Your task to perform on an android device: Go to privacy settings Image 0: 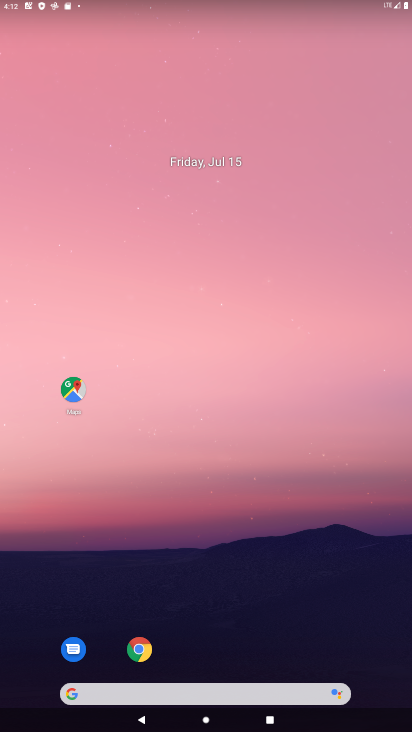
Step 0: drag from (295, 580) to (281, 111)
Your task to perform on an android device: Go to privacy settings Image 1: 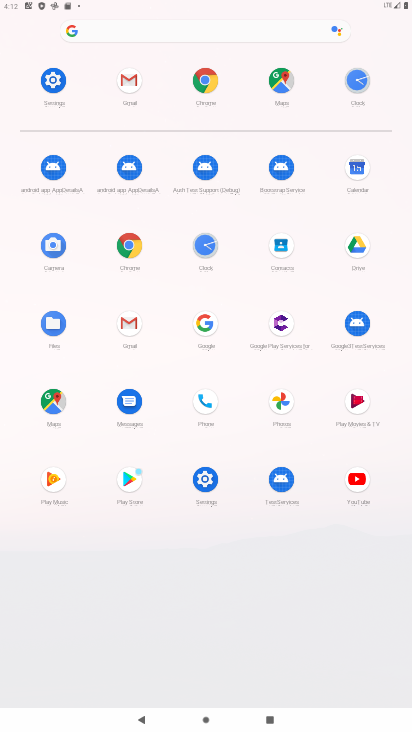
Step 1: click (56, 84)
Your task to perform on an android device: Go to privacy settings Image 2: 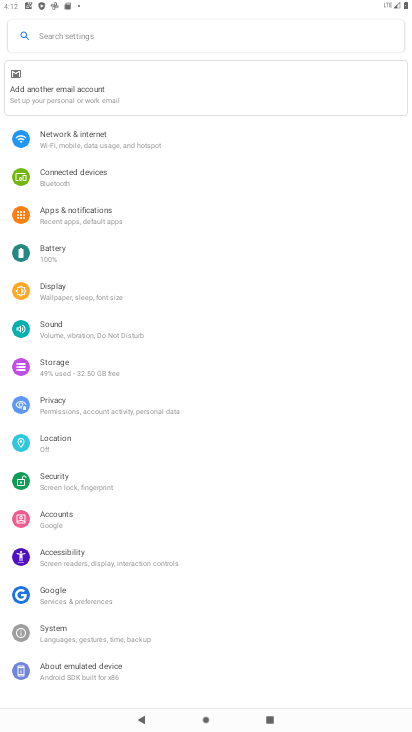
Step 2: click (95, 414)
Your task to perform on an android device: Go to privacy settings Image 3: 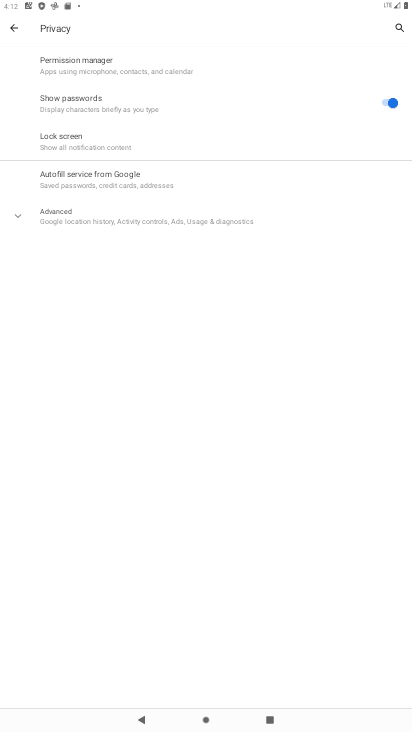
Step 3: task complete